Your task to perform on an android device: Go to notification settings Image 0: 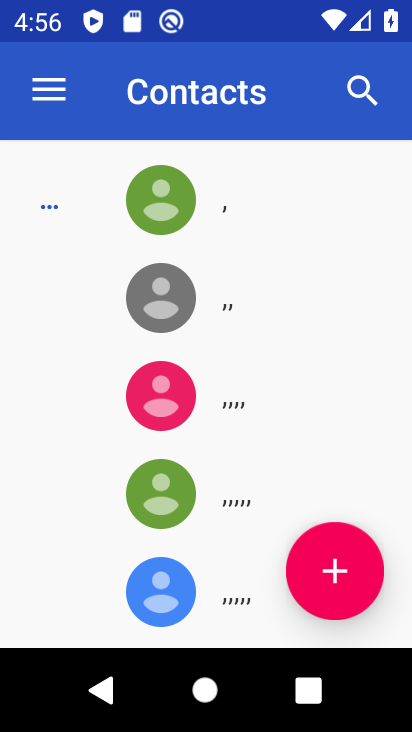
Step 0: press back button
Your task to perform on an android device: Go to notification settings Image 1: 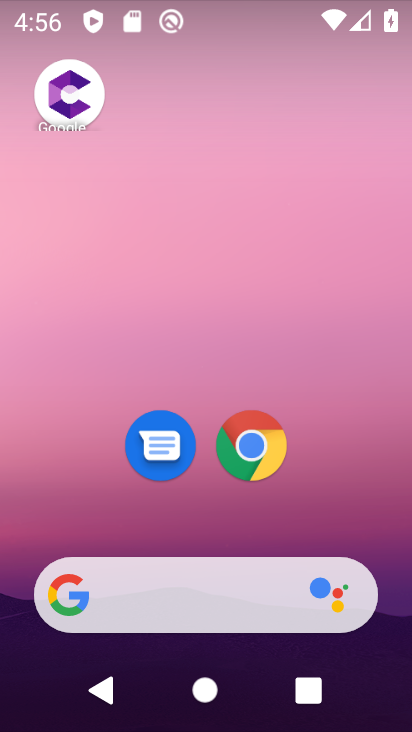
Step 1: drag from (316, 453) to (178, 25)
Your task to perform on an android device: Go to notification settings Image 2: 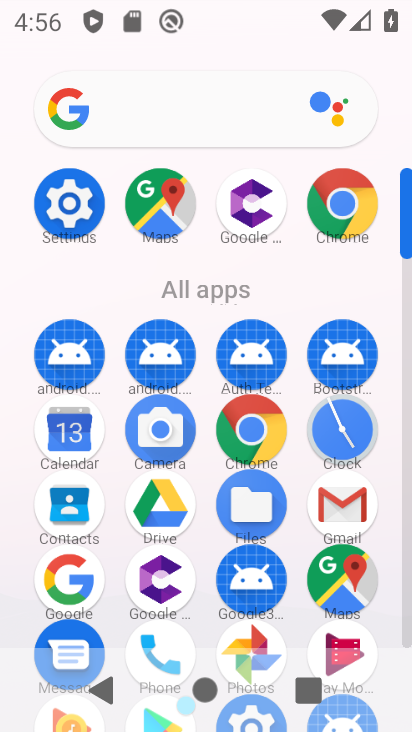
Step 2: click (55, 174)
Your task to perform on an android device: Go to notification settings Image 3: 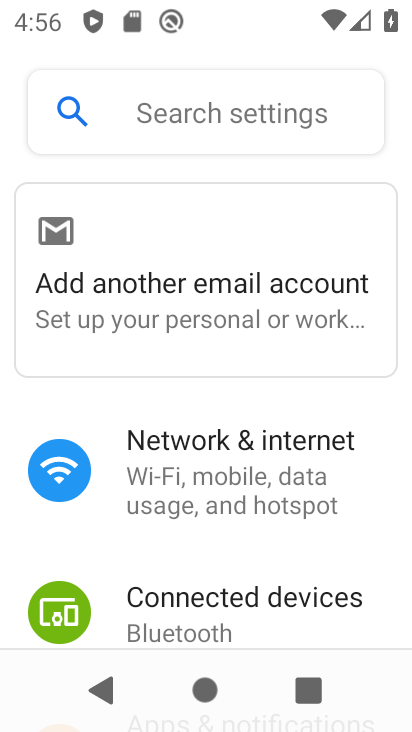
Step 3: drag from (212, 594) to (115, 142)
Your task to perform on an android device: Go to notification settings Image 4: 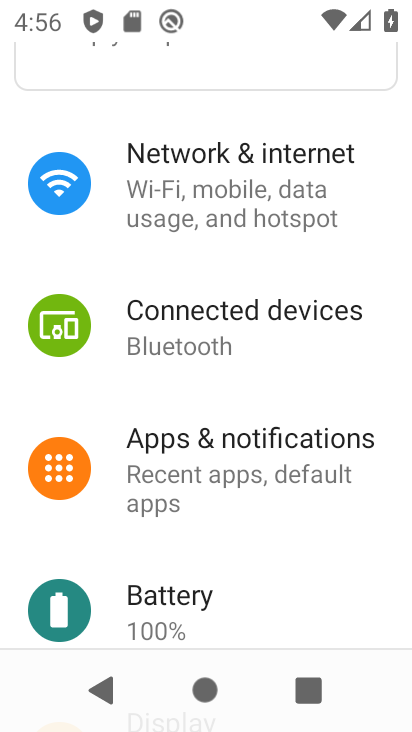
Step 4: click (206, 441)
Your task to perform on an android device: Go to notification settings Image 5: 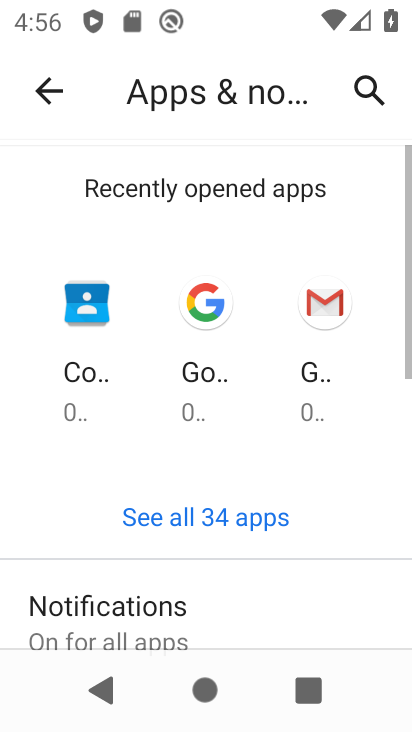
Step 5: drag from (171, 578) to (60, 24)
Your task to perform on an android device: Go to notification settings Image 6: 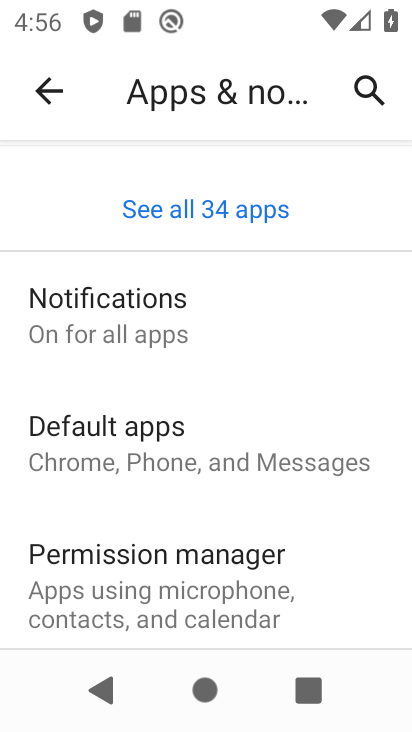
Step 6: drag from (141, 386) to (100, 106)
Your task to perform on an android device: Go to notification settings Image 7: 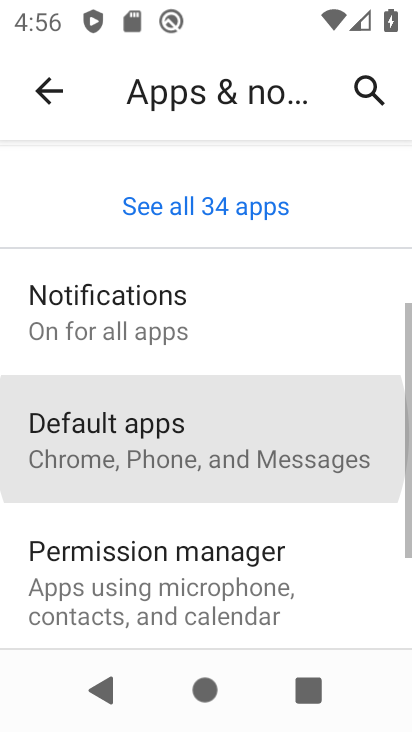
Step 7: click (141, 115)
Your task to perform on an android device: Go to notification settings Image 8: 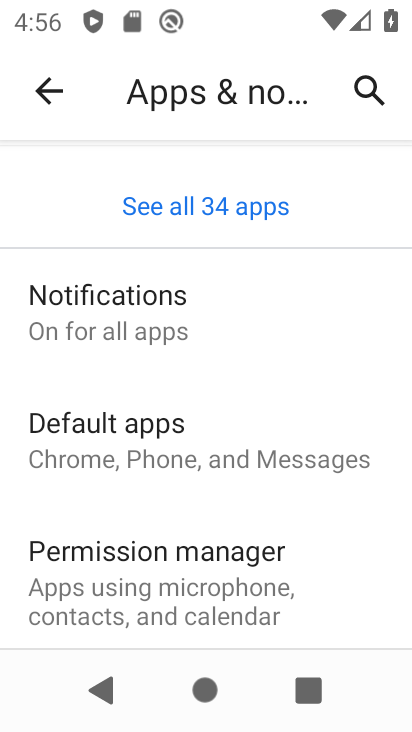
Step 8: task complete